Your task to perform on an android device: open app "Google Translate" (install if not already installed) Image 0: 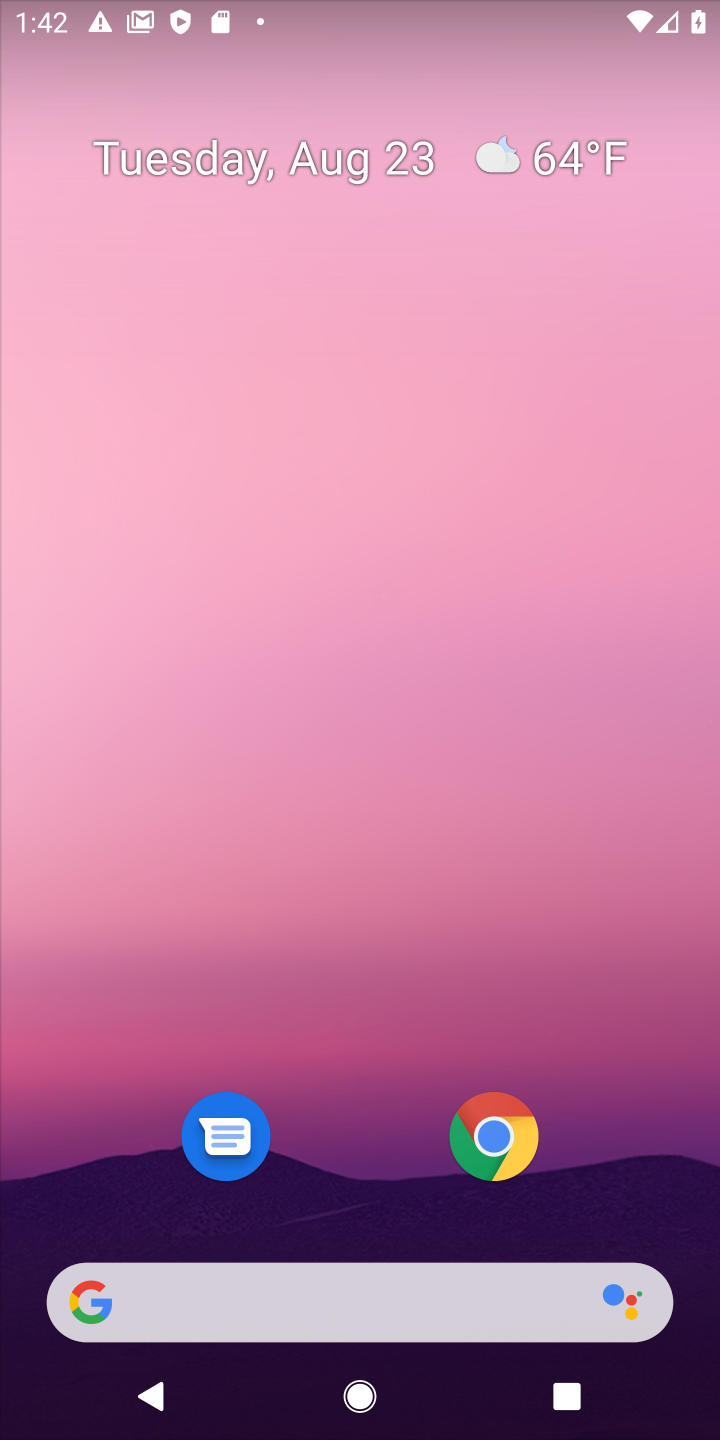
Step 0: drag from (333, 785) to (381, 184)
Your task to perform on an android device: open app "Google Translate" (install if not already installed) Image 1: 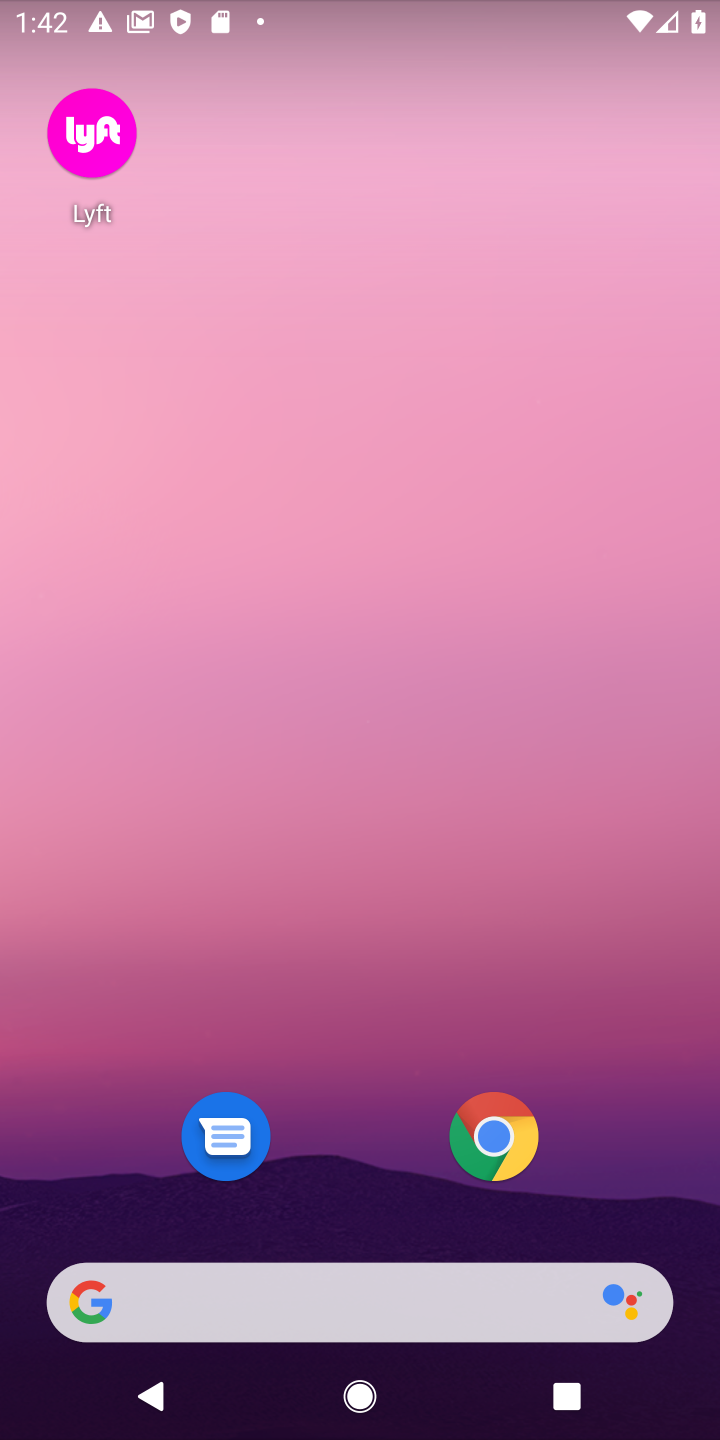
Step 1: drag from (334, 864) to (334, 400)
Your task to perform on an android device: open app "Google Translate" (install if not already installed) Image 2: 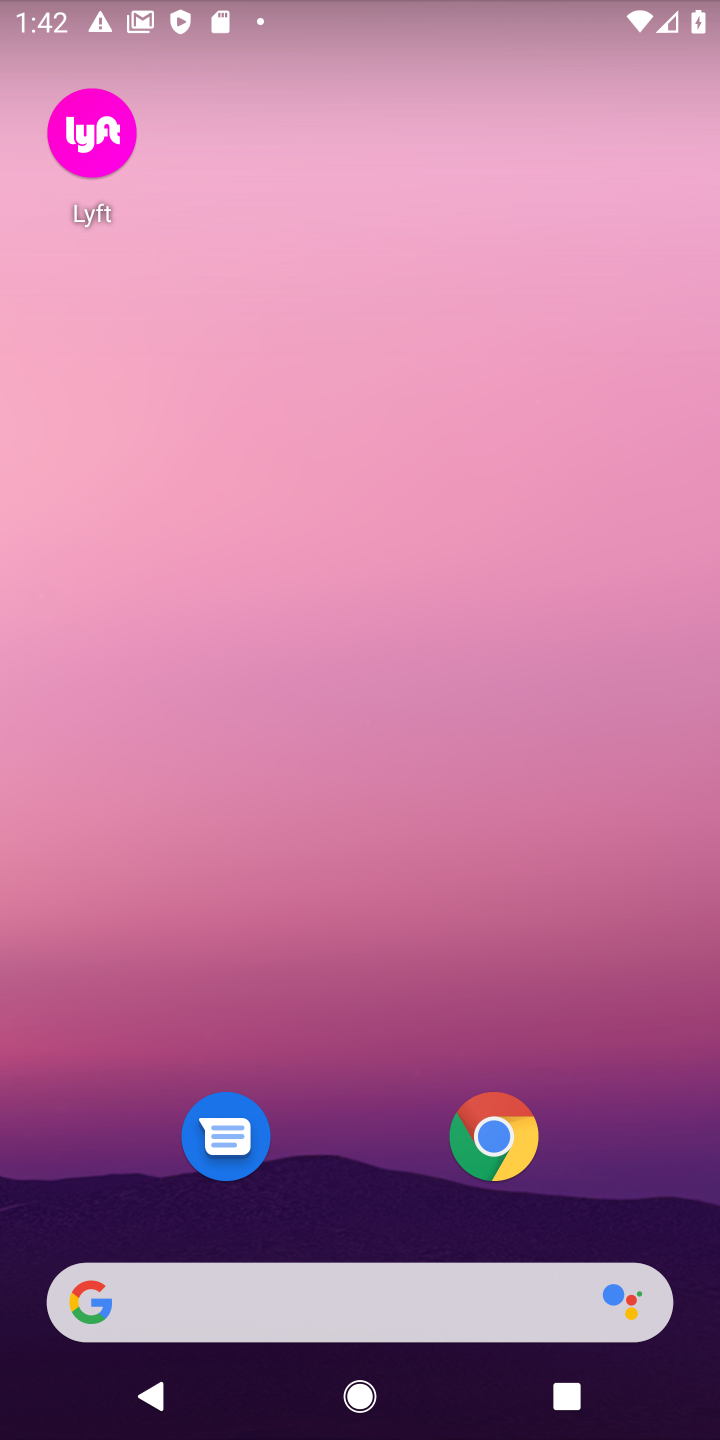
Step 2: drag from (407, 788) to (413, 195)
Your task to perform on an android device: open app "Google Translate" (install if not already installed) Image 3: 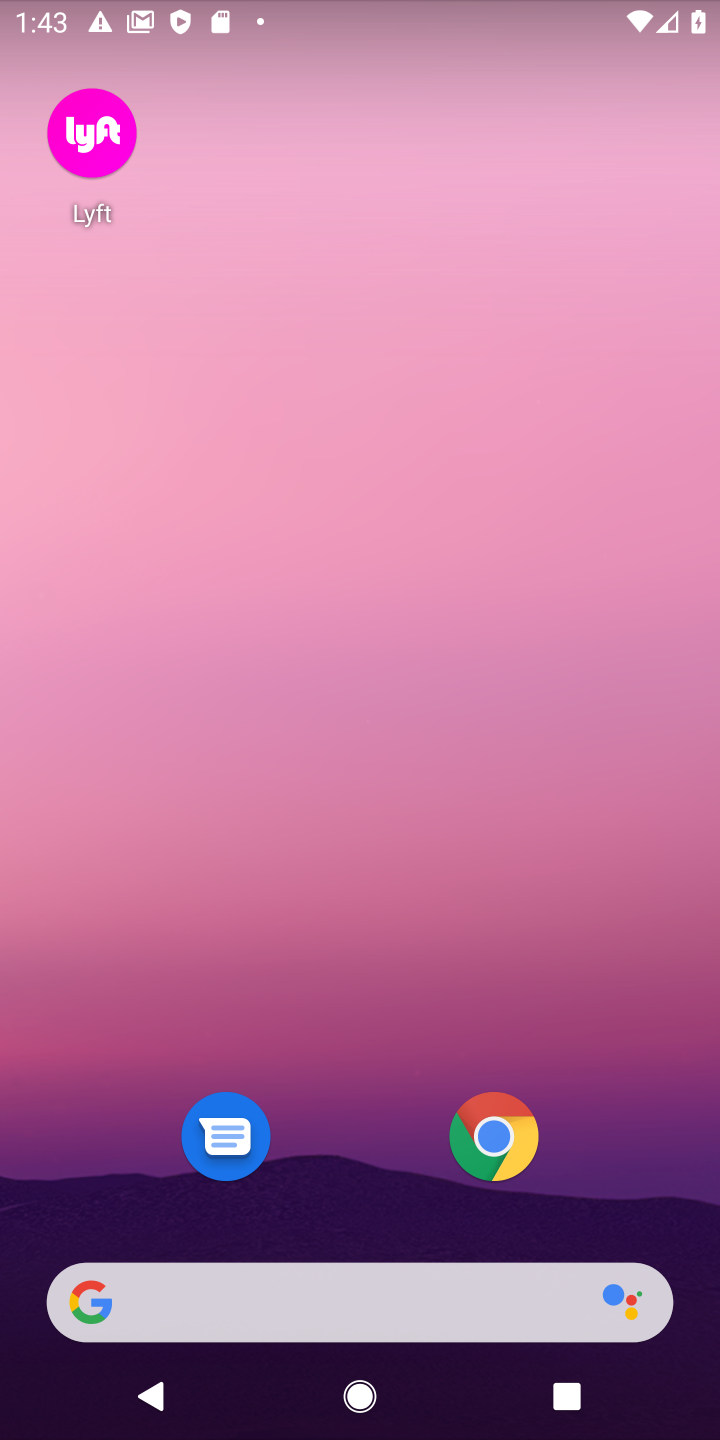
Step 3: drag from (374, 966) to (497, 13)
Your task to perform on an android device: open app "Google Translate" (install if not already installed) Image 4: 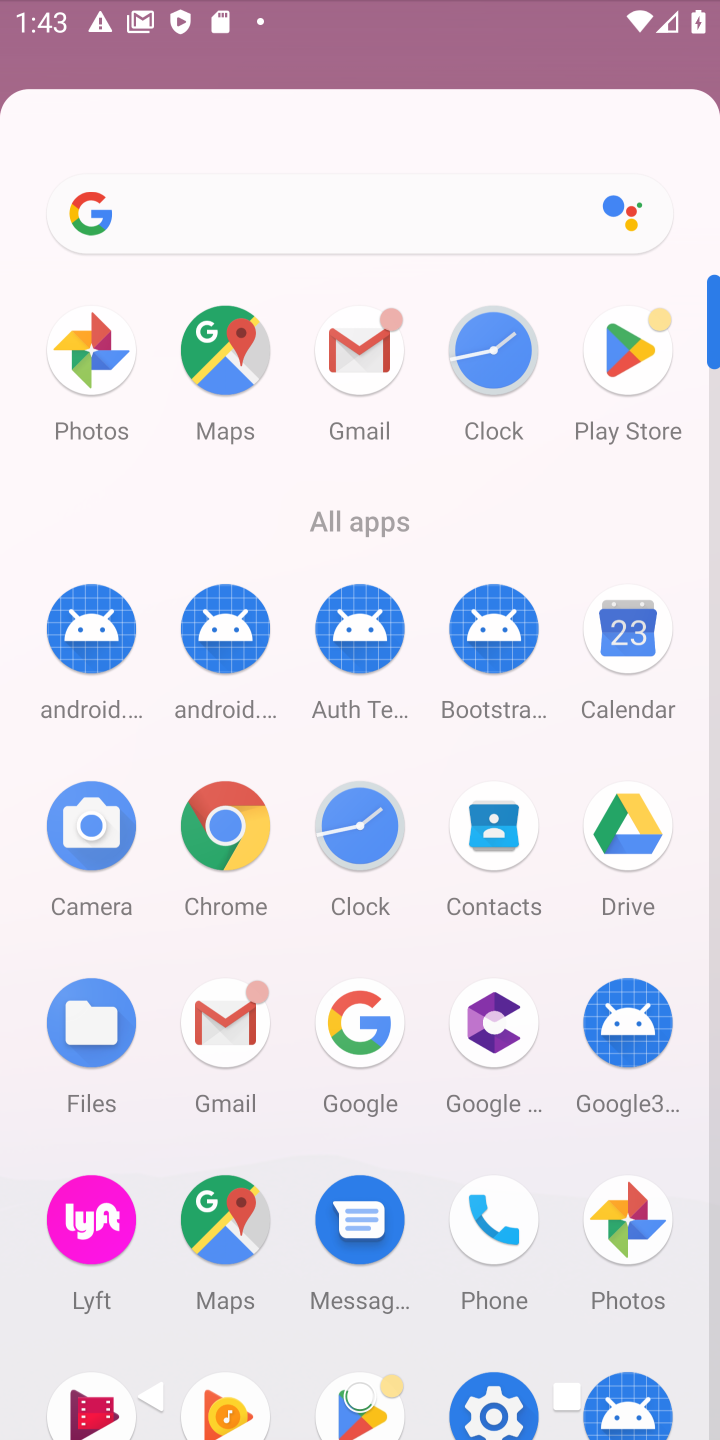
Step 4: click (609, 519)
Your task to perform on an android device: open app "Google Translate" (install if not already installed) Image 5: 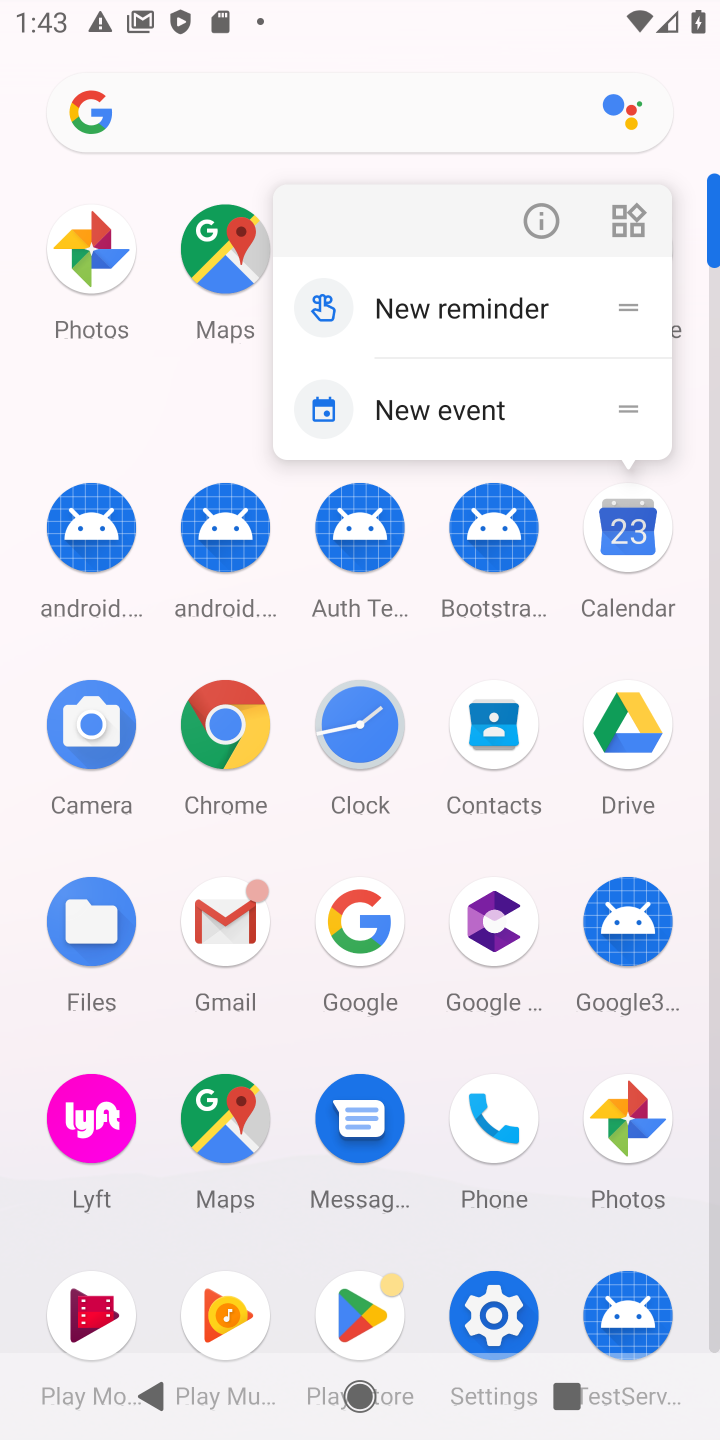
Step 5: click (134, 378)
Your task to perform on an android device: open app "Google Translate" (install if not already installed) Image 6: 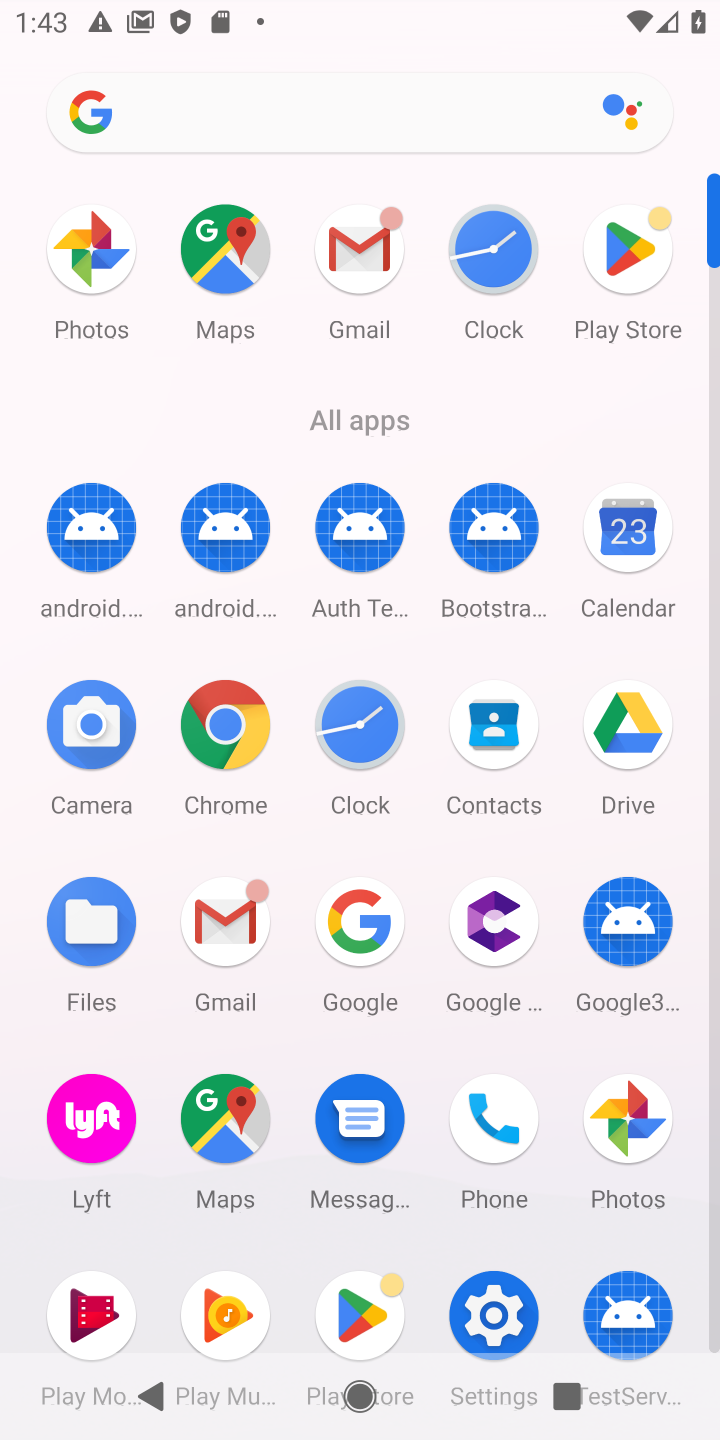
Step 6: click (649, 269)
Your task to perform on an android device: open app "Google Translate" (install if not already installed) Image 7: 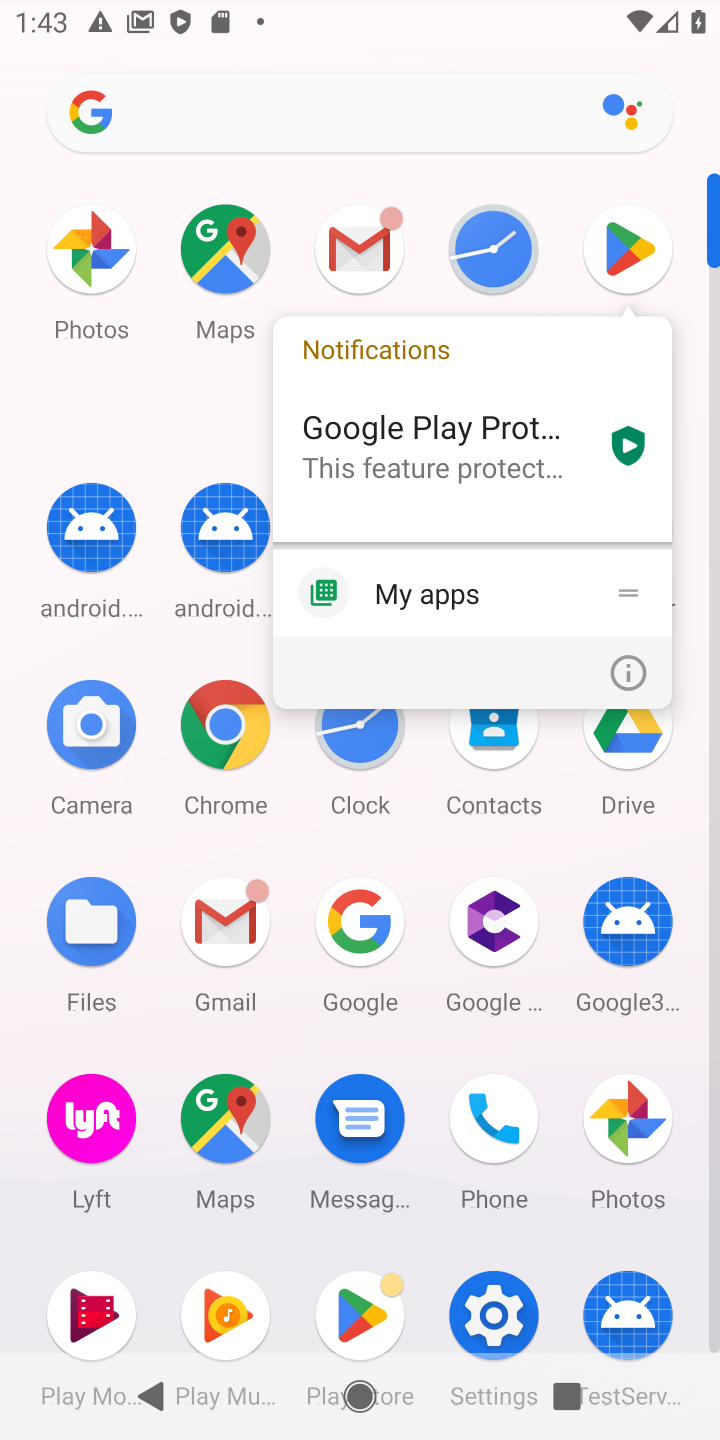
Step 7: click (627, 248)
Your task to perform on an android device: open app "Google Translate" (install if not already installed) Image 8: 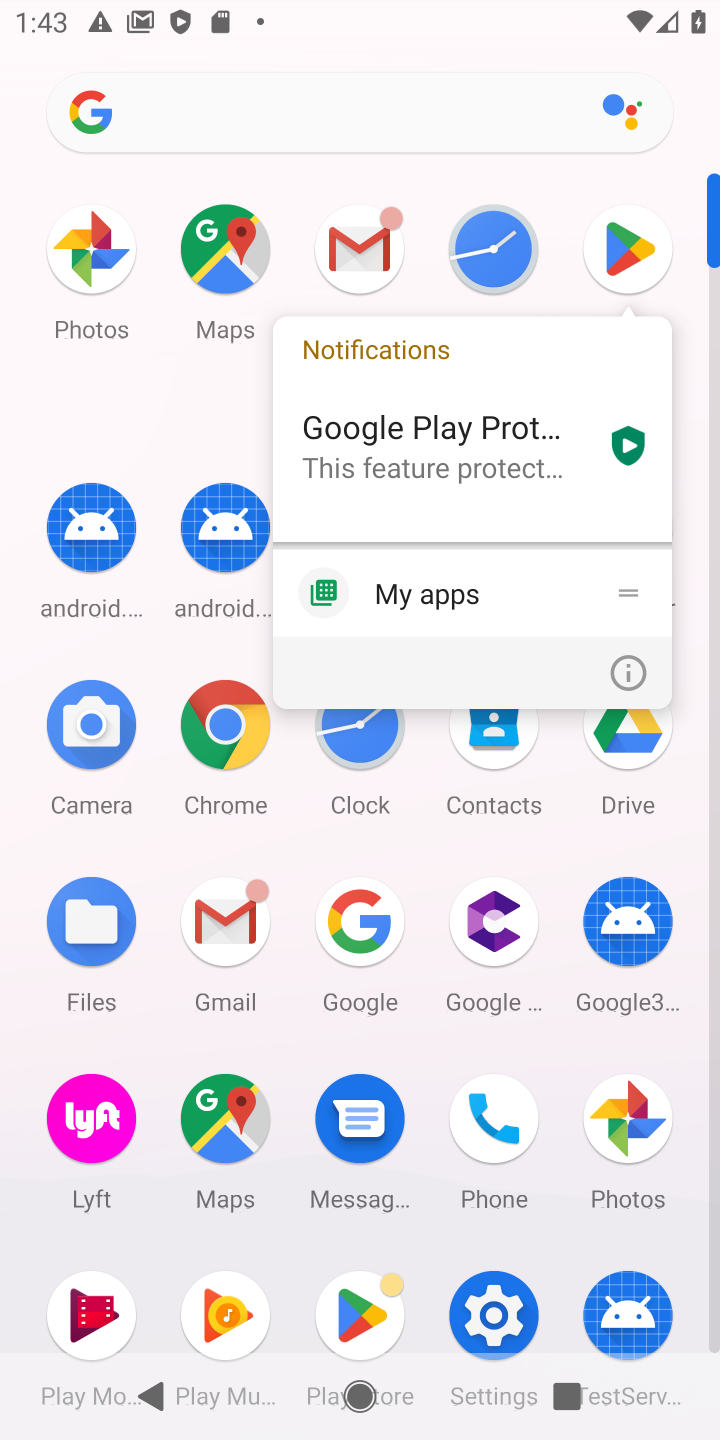
Step 8: click (627, 248)
Your task to perform on an android device: open app "Google Translate" (install if not already installed) Image 9: 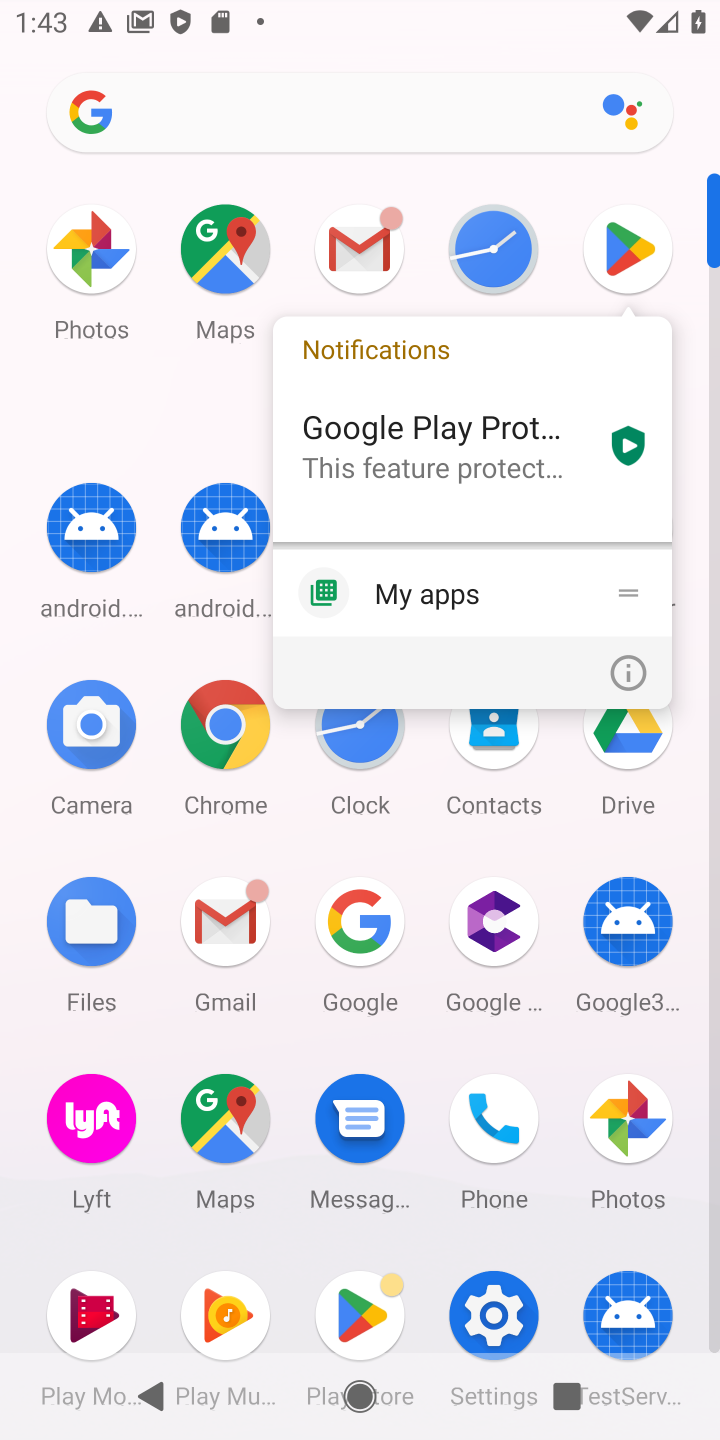
Step 9: click (627, 248)
Your task to perform on an android device: open app "Google Translate" (install if not already installed) Image 10: 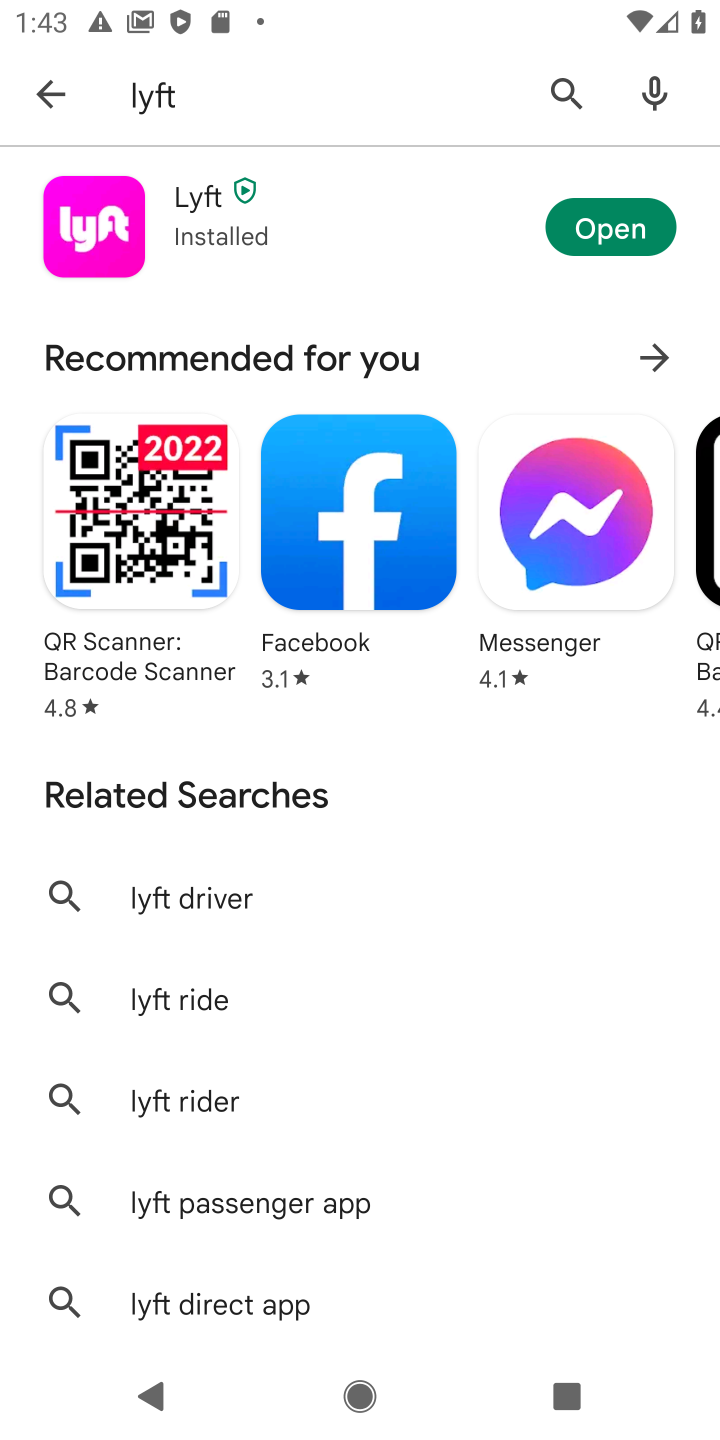
Step 10: click (545, 97)
Your task to perform on an android device: open app "Google Translate" (install if not already installed) Image 11: 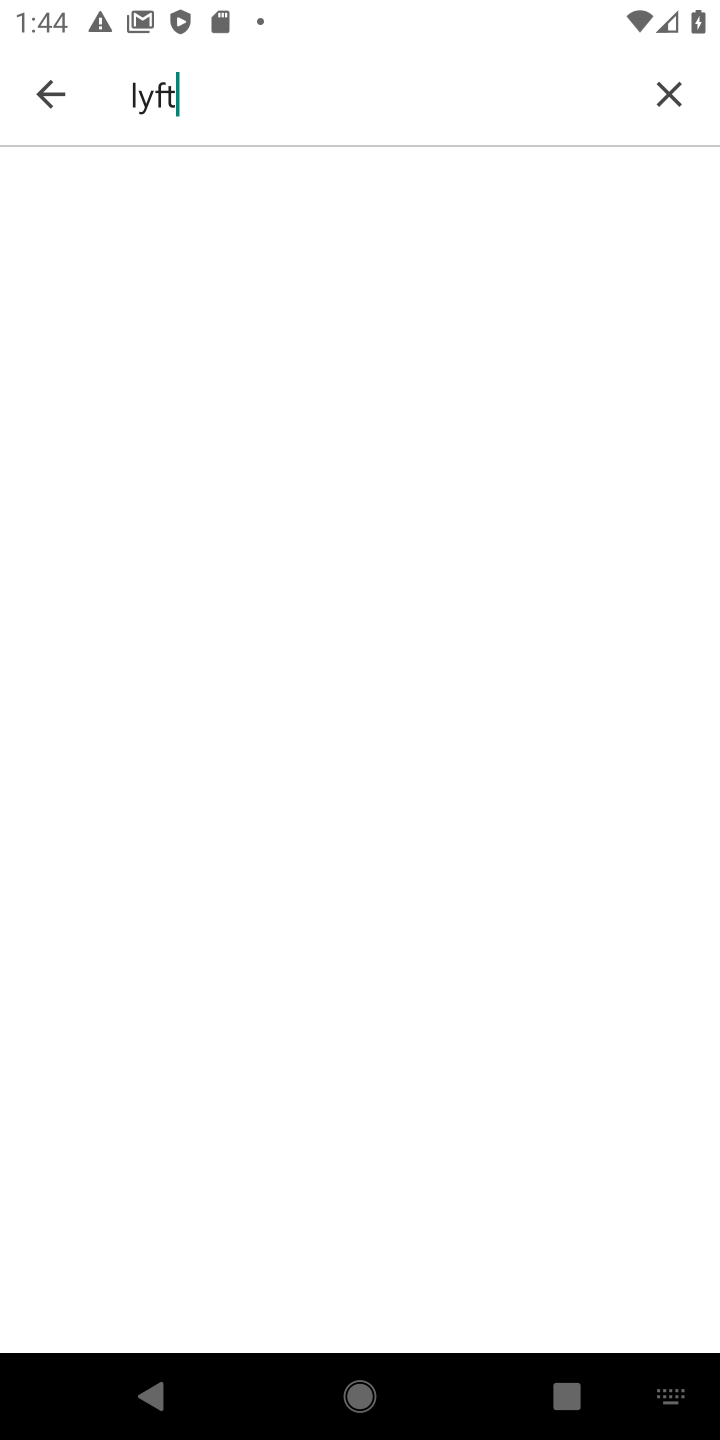
Step 11: click (676, 107)
Your task to perform on an android device: open app "Google Translate" (install if not already installed) Image 12: 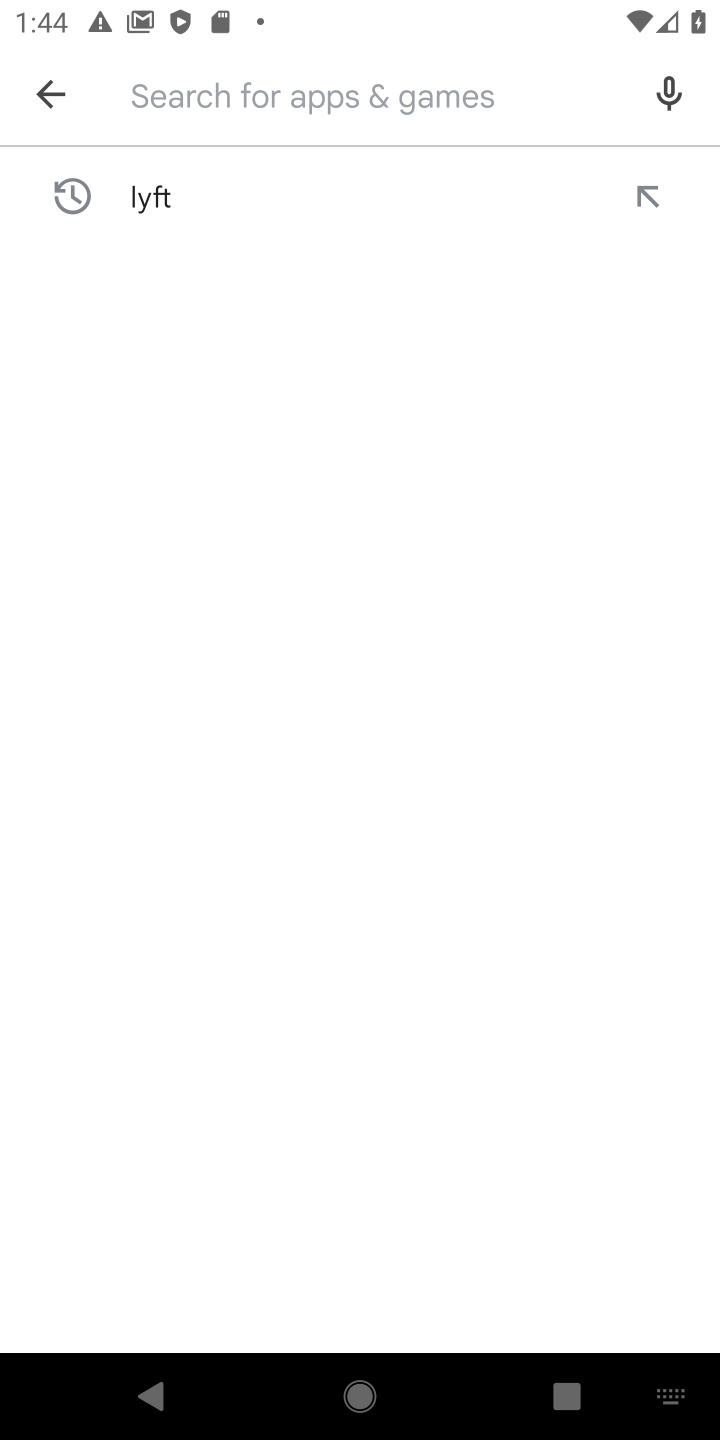
Step 12: type "Google Translate"
Your task to perform on an android device: open app "Google Translate" (install if not already installed) Image 13: 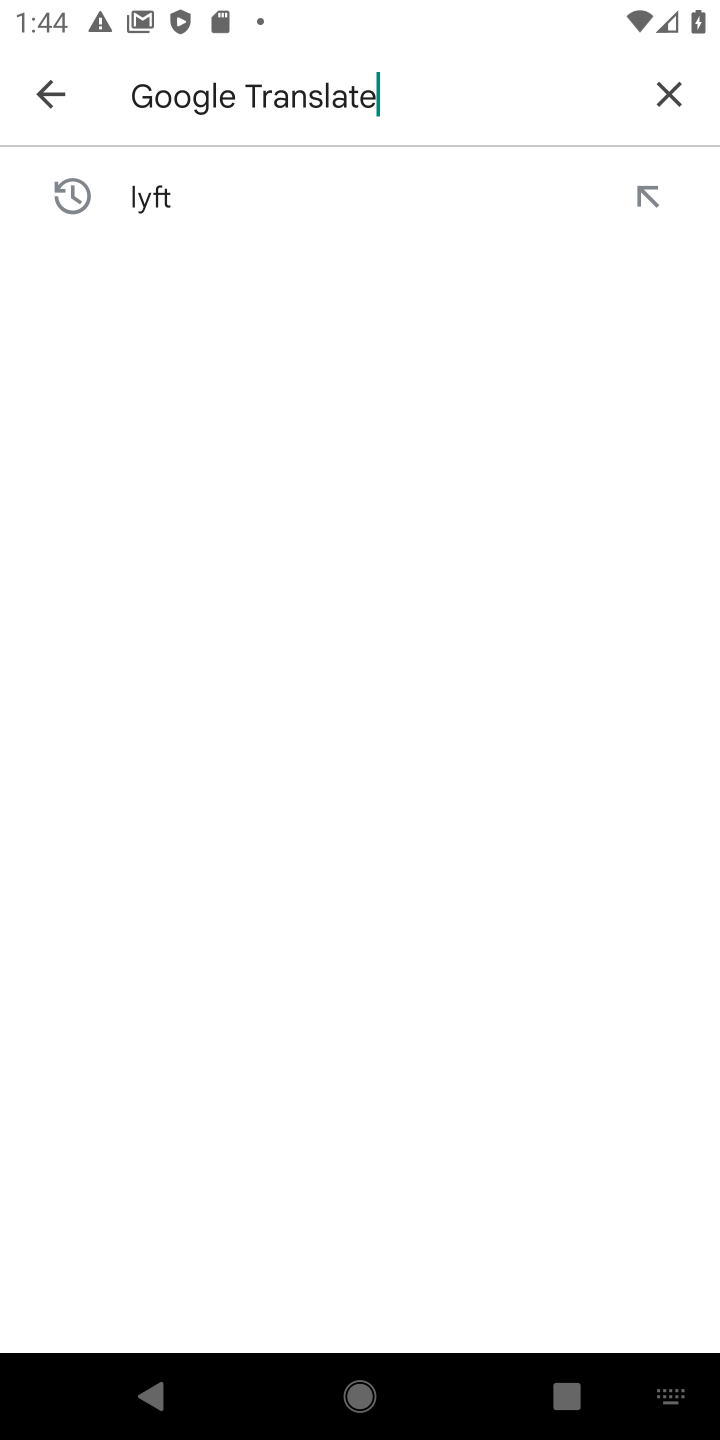
Step 13: type ""
Your task to perform on an android device: open app "Google Translate" (install if not already installed) Image 14: 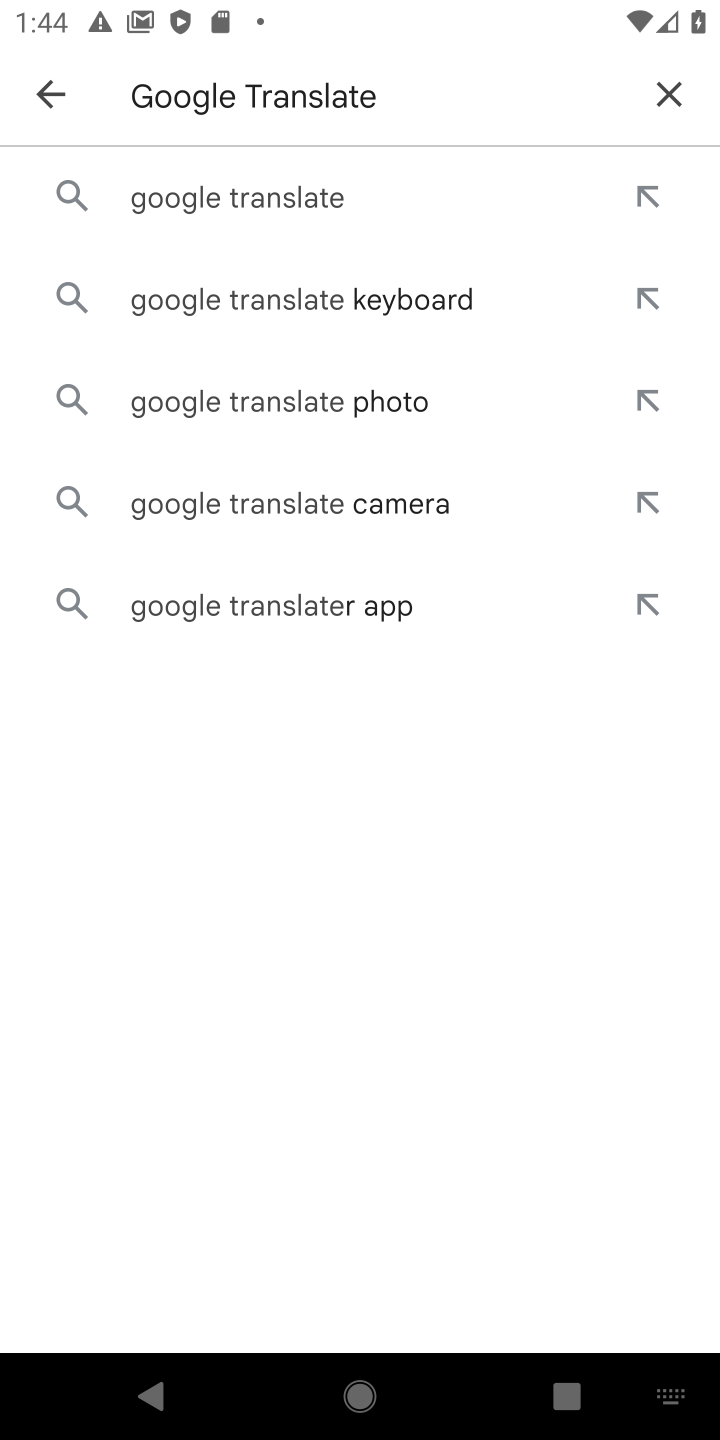
Step 14: click (408, 191)
Your task to perform on an android device: open app "Google Translate" (install if not already installed) Image 15: 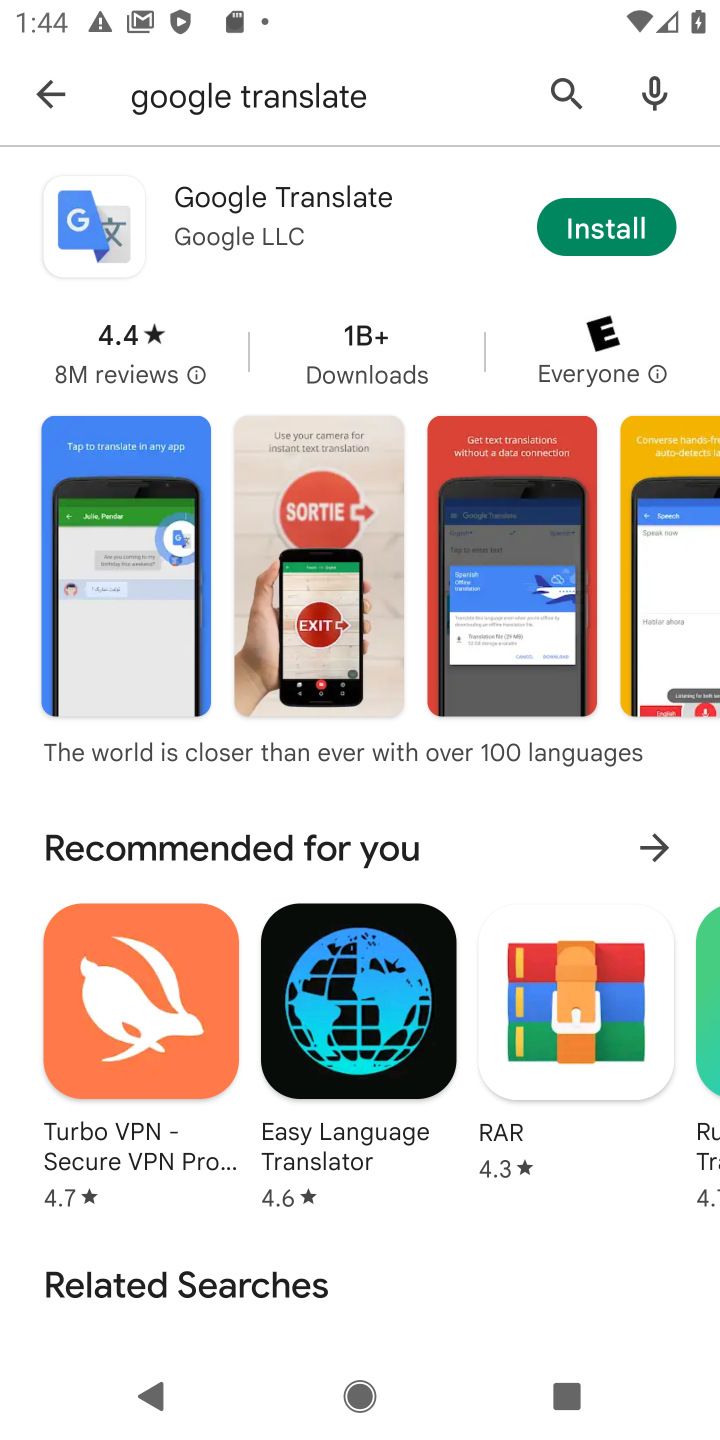
Step 15: click (595, 242)
Your task to perform on an android device: open app "Google Translate" (install if not already installed) Image 16: 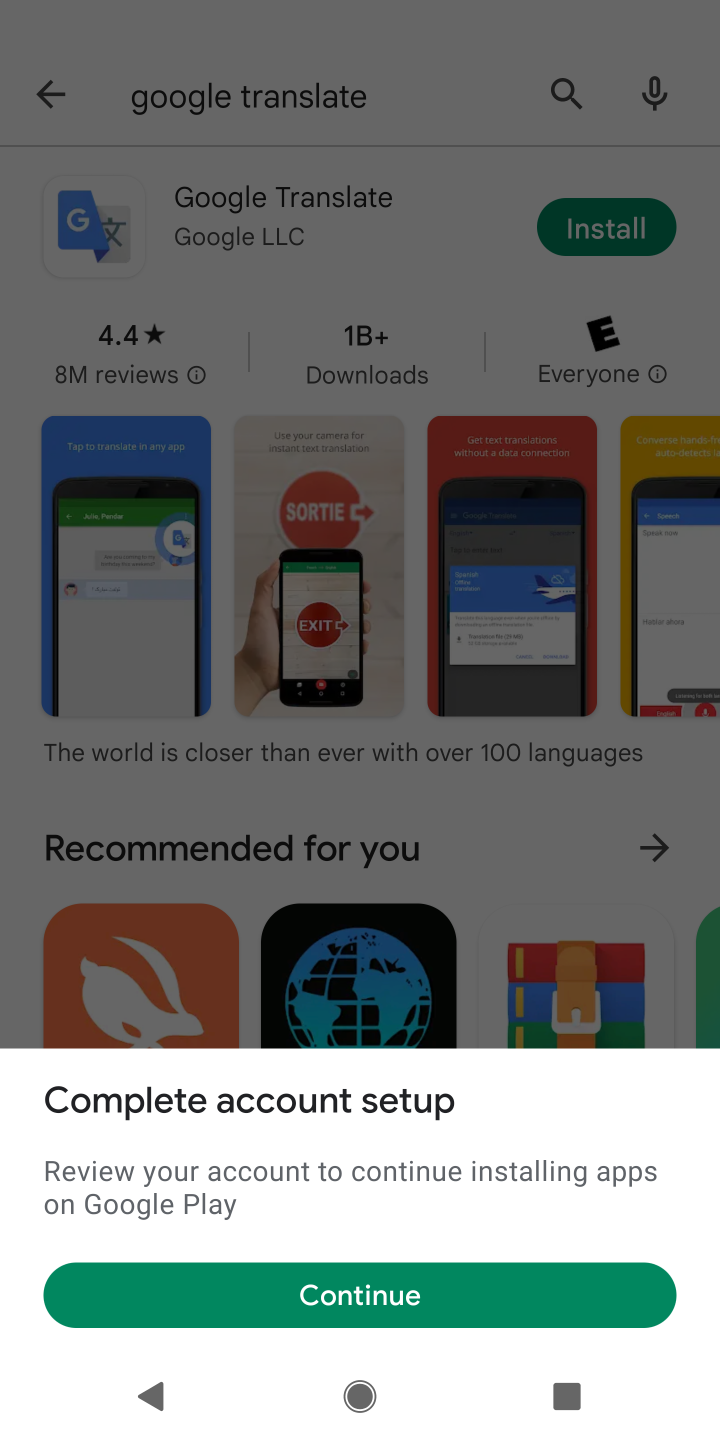
Step 16: task complete